Your task to perform on an android device: Do I have any events this weekend? Image 0: 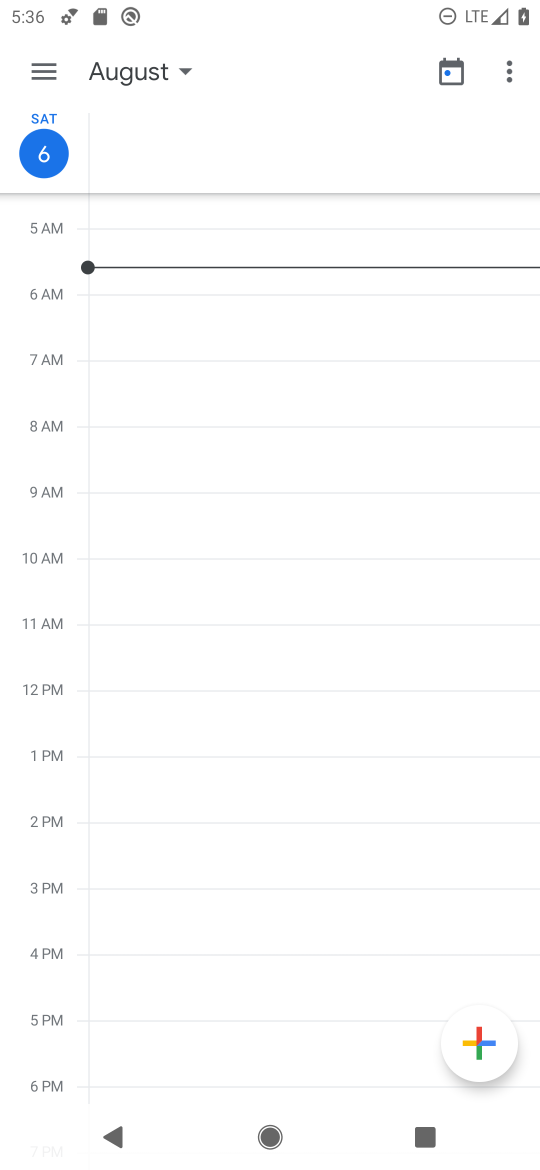
Step 0: press home button
Your task to perform on an android device: Do I have any events this weekend? Image 1: 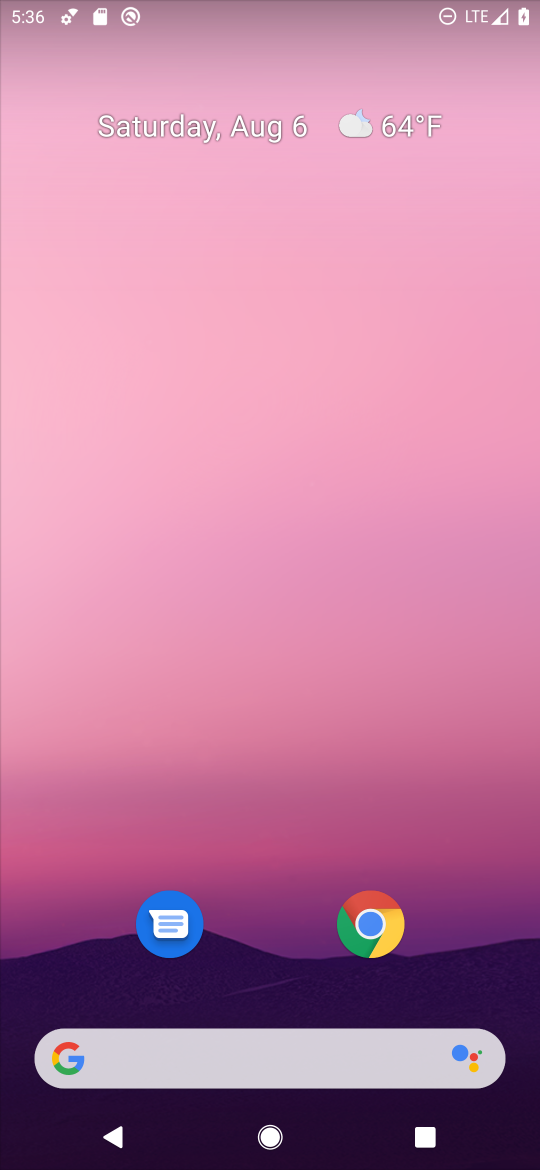
Step 1: drag from (257, 951) to (256, 274)
Your task to perform on an android device: Do I have any events this weekend? Image 2: 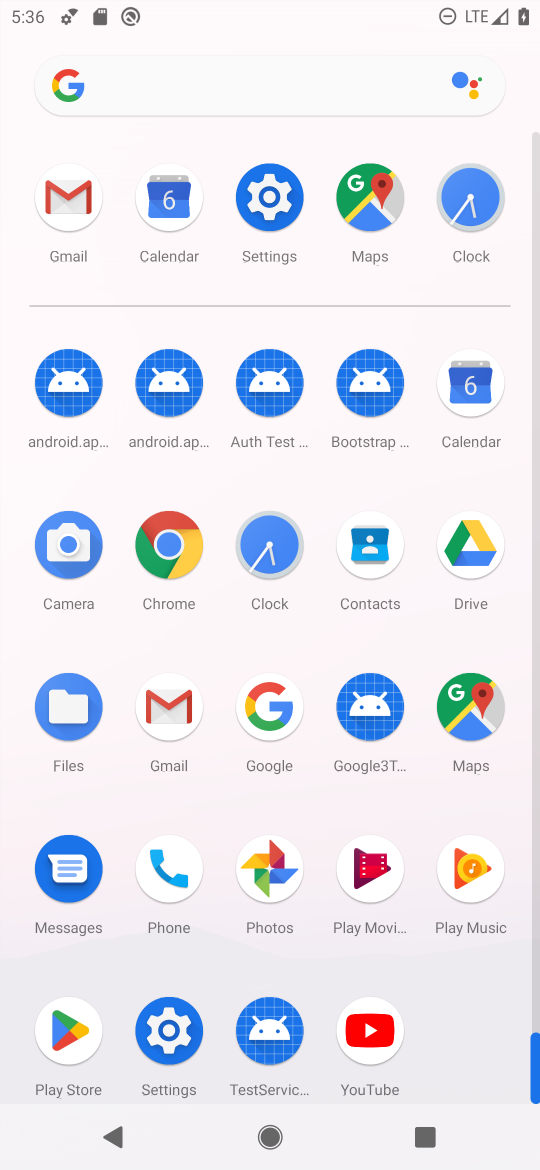
Step 2: click (486, 391)
Your task to perform on an android device: Do I have any events this weekend? Image 3: 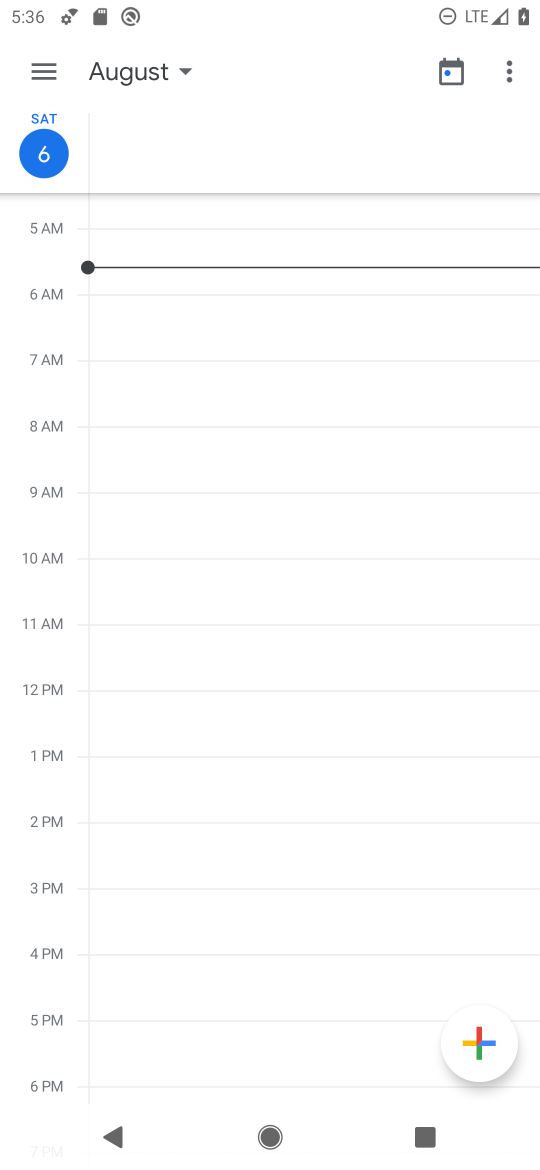
Step 3: click (44, 68)
Your task to perform on an android device: Do I have any events this weekend? Image 4: 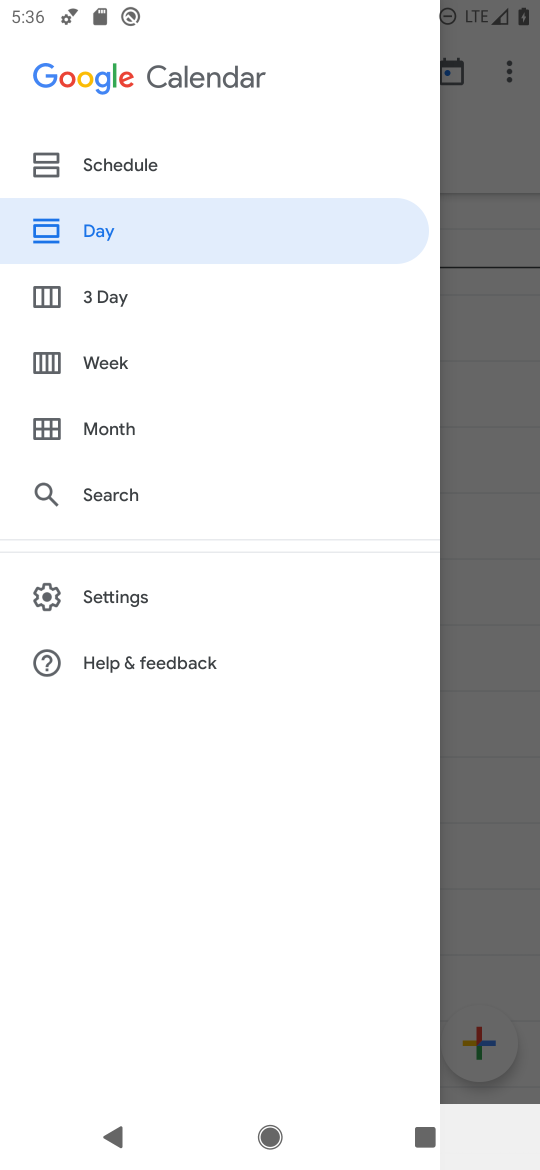
Step 4: click (101, 355)
Your task to perform on an android device: Do I have any events this weekend? Image 5: 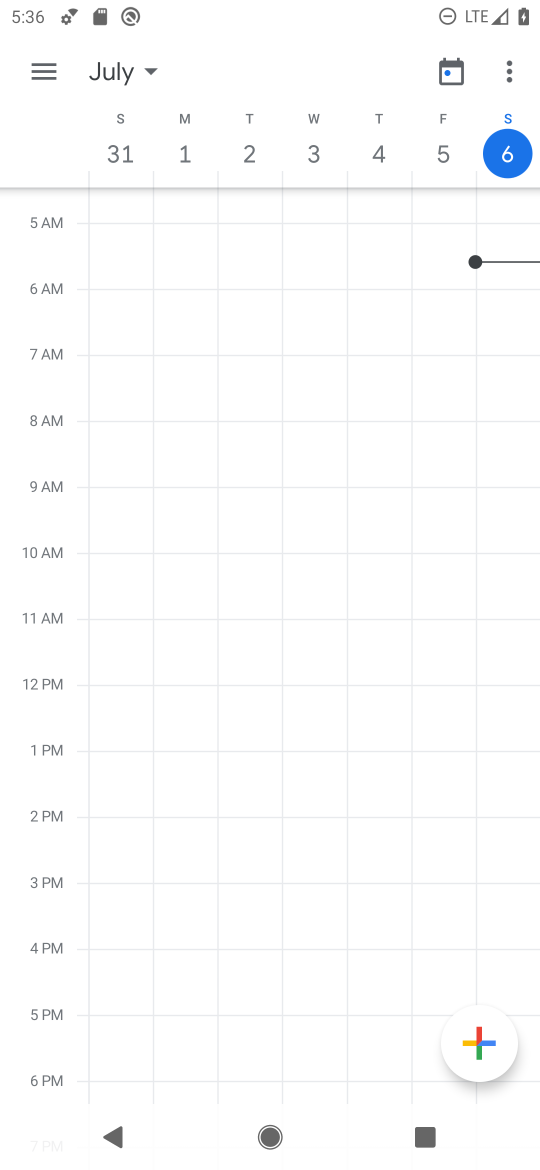
Step 5: task complete